Your task to perform on an android device: Go to network settings Image 0: 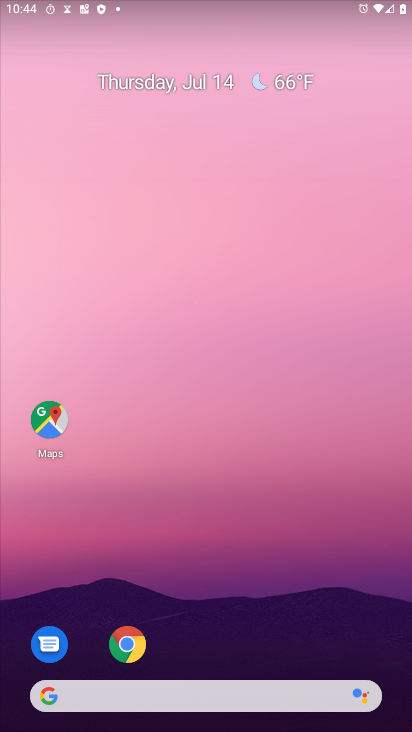
Step 0: drag from (287, 426) to (252, 217)
Your task to perform on an android device: Go to network settings Image 1: 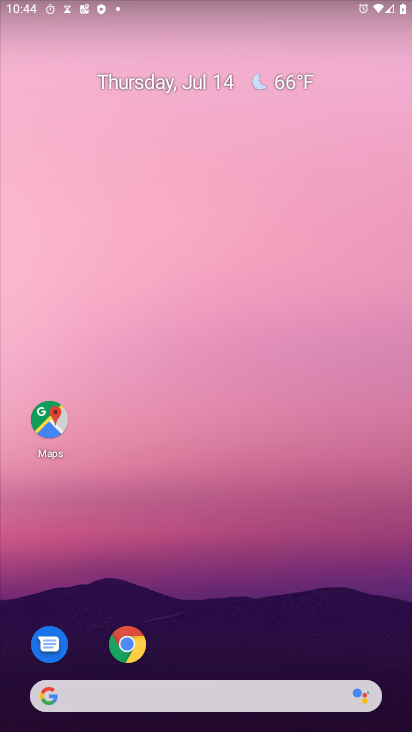
Step 1: drag from (255, 566) to (223, 82)
Your task to perform on an android device: Go to network settings Image 2: 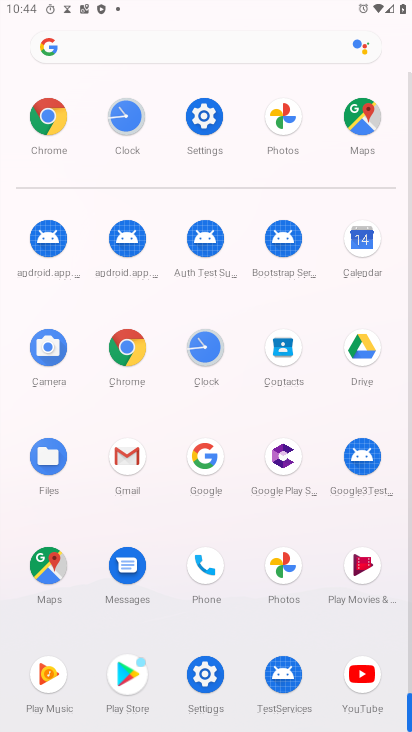
Step 2: click (200, 116)
Your task to perform on an android device: Go to network settings Image 3: 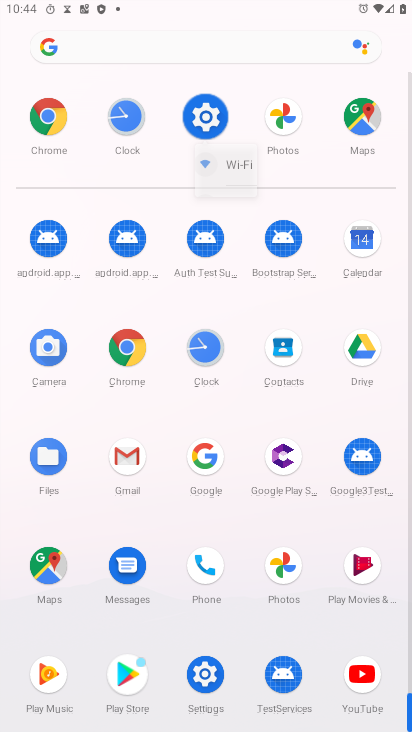
Step 3: click (211, 105)
Your task to perform on an android device: Go to network settings Image 4: 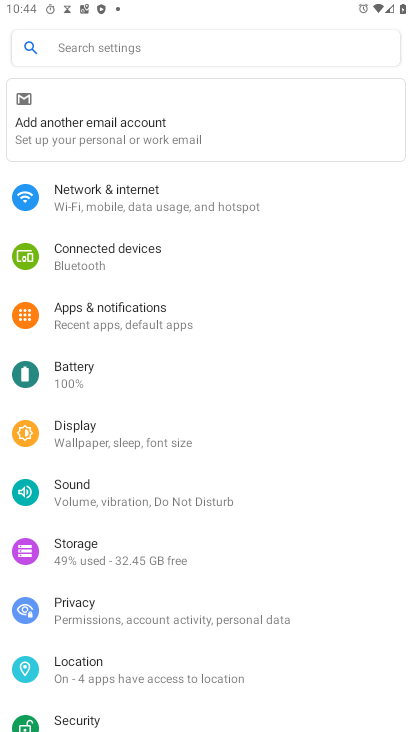
Step 4: click (118, 205)
Your task to perform on an android device: Go to network settings Image 5: 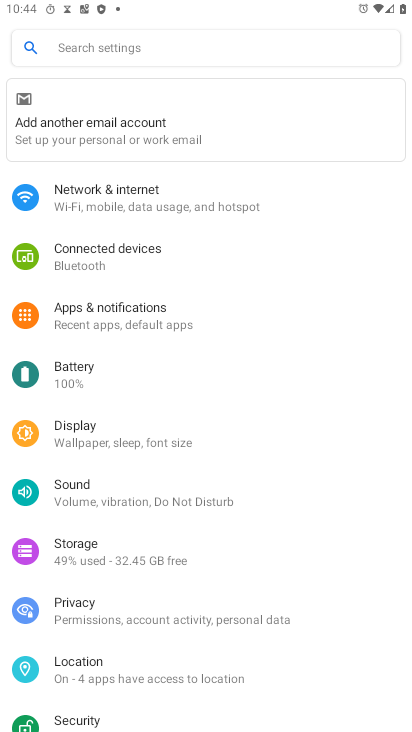
Step 5: click (133, 184)
Your task to perform on an android device: Go to network settings Image 6: 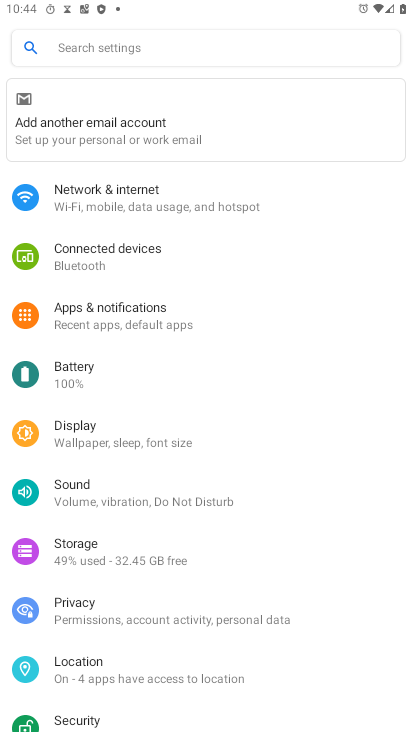
Step 6: click (136, 186)
Your task to perform on an android device: Go to network settings Image 7: 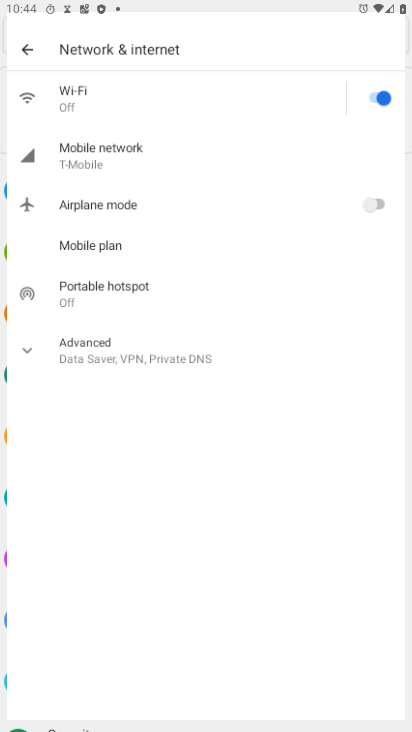
Step 7: click (139, 186)
Your task to perform on an android device: Go to network settings Image 8: 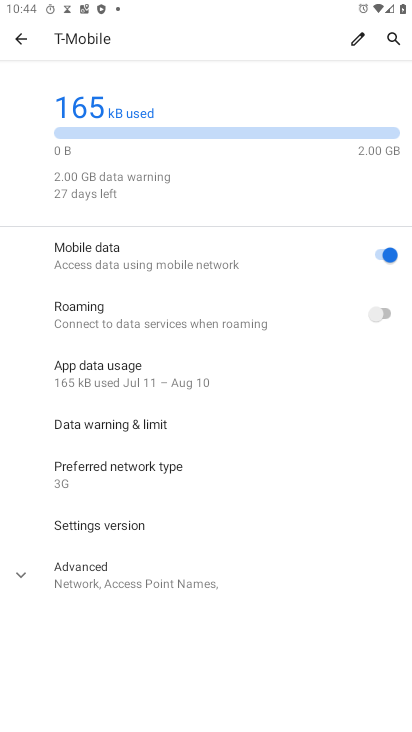
Step 8: task complete